Your task to perform on an android device: uninstall "PlayWell" Image 0: 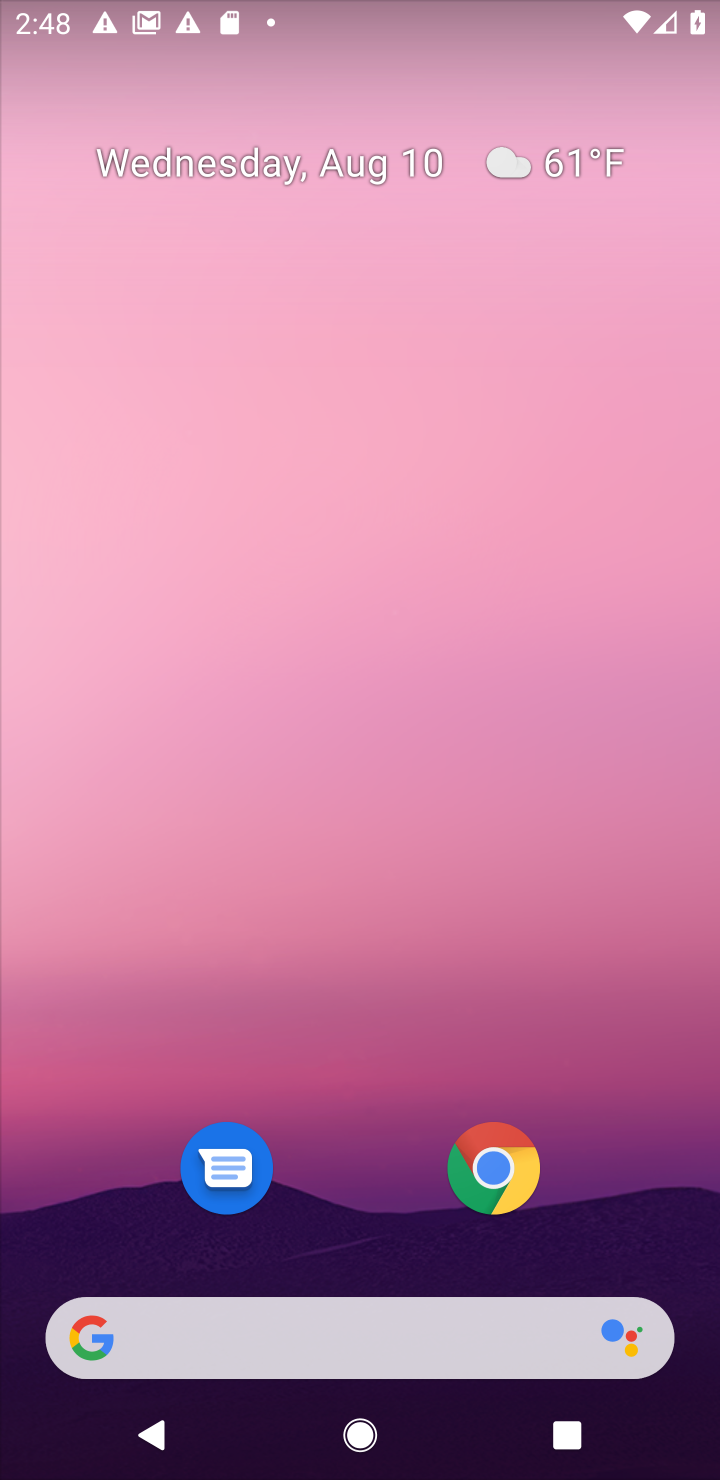
Step 0: drag from (273, 1332) to (278, 180)
Your task to perform on an android device: uninstall "PlayWell" Image 1: 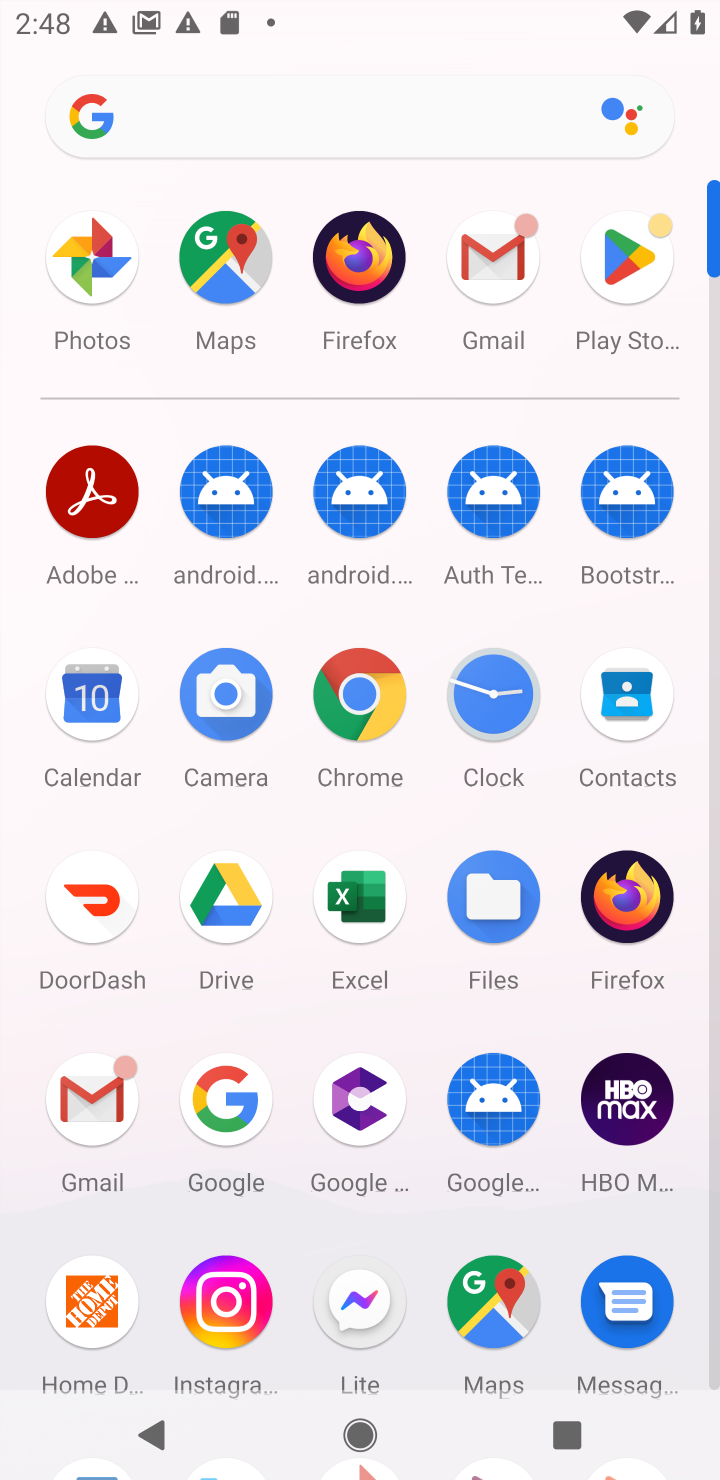
Step 1: click (636, 260)
Your task to perform on an android device: uninstall "PlayWell" Image 2: 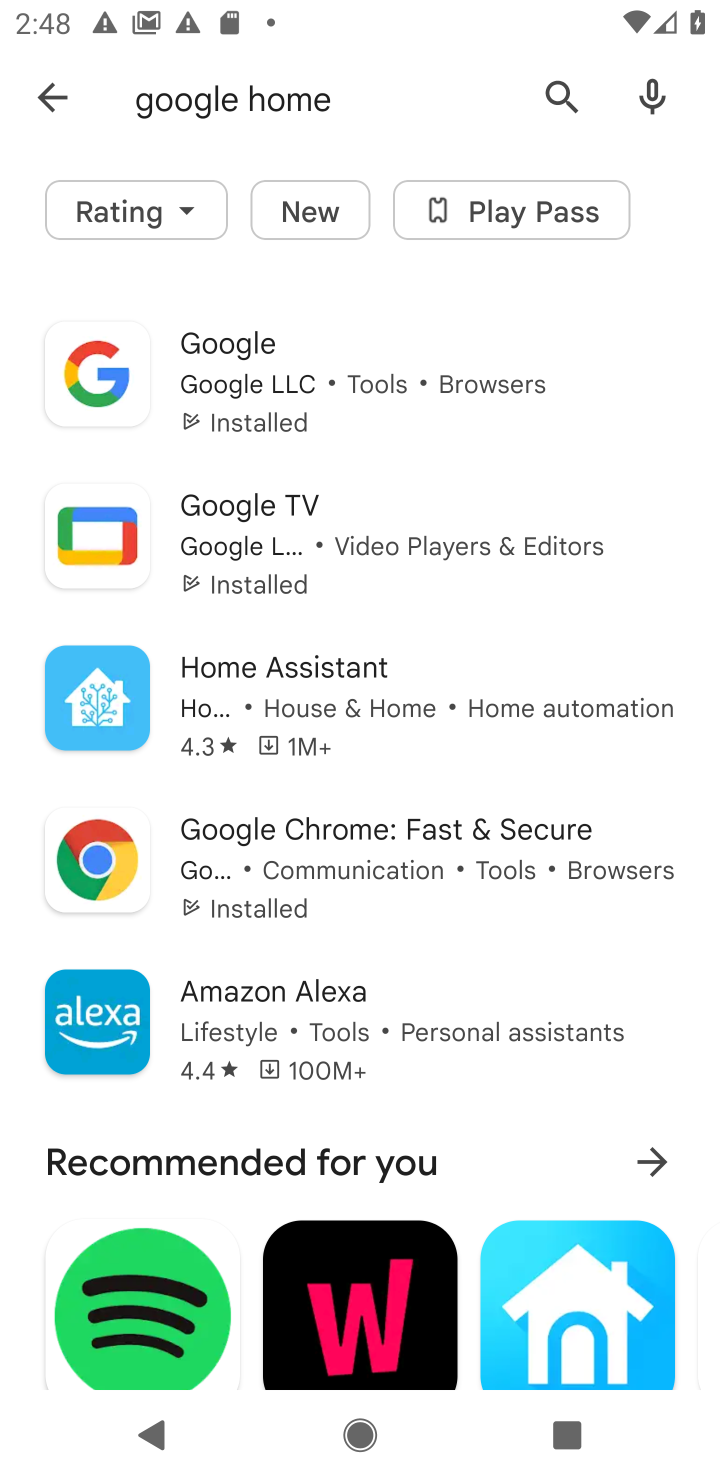
Step 2: press back button
Your task to perform on an android device: uninstall "PlayWell" Image 3: 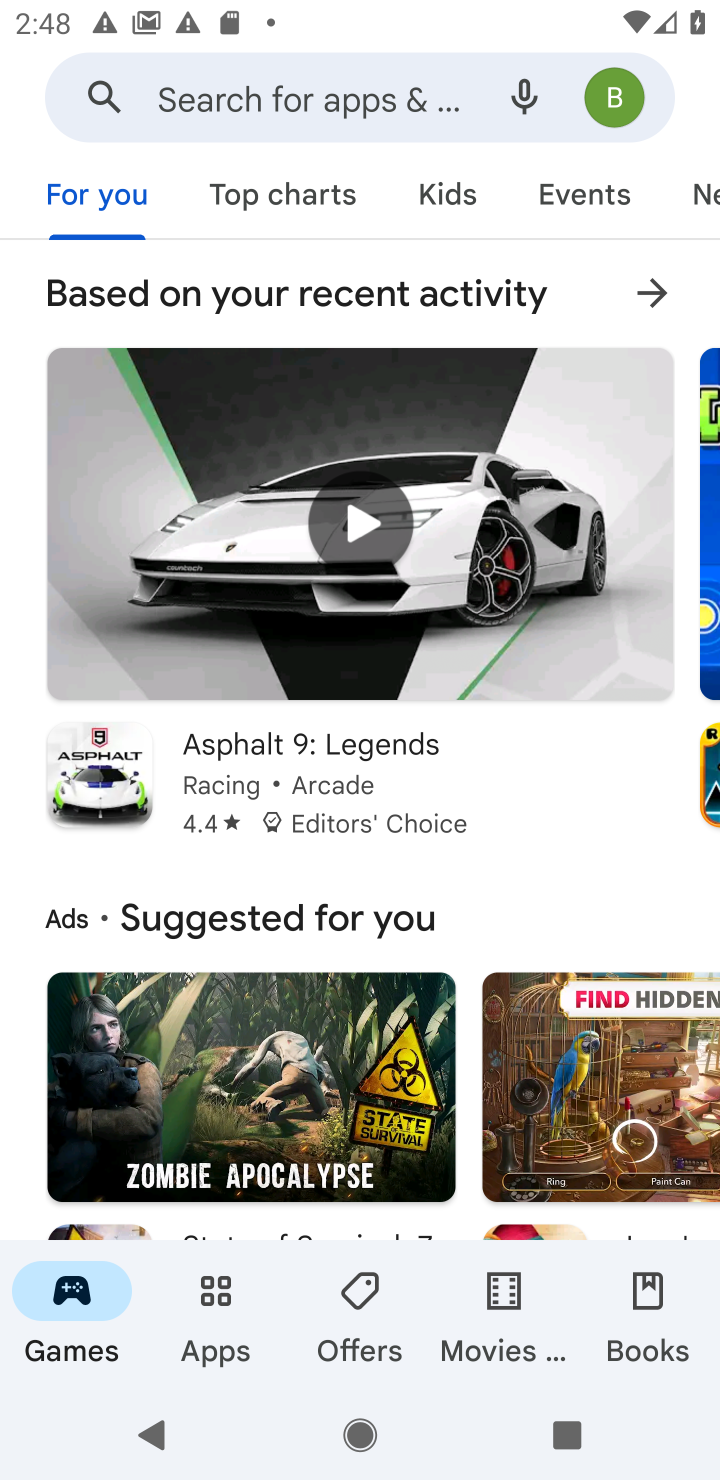
Step 3: click (408, 105)
Your task to perform on an android device: uninstall "PlayWell" Image 4: 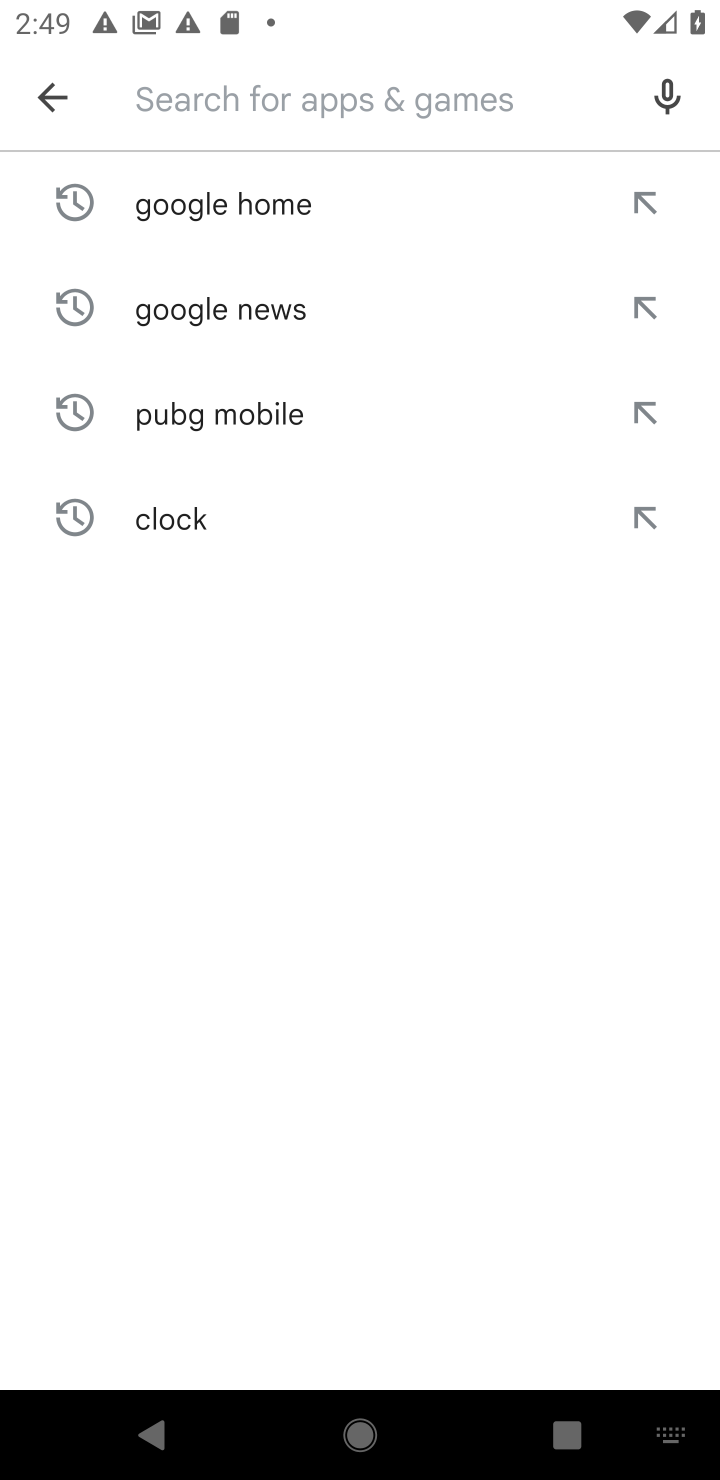
Step 4: type "PlayWell"
Your task to perform on an android device: uninstall "PlayWell" Image 5: 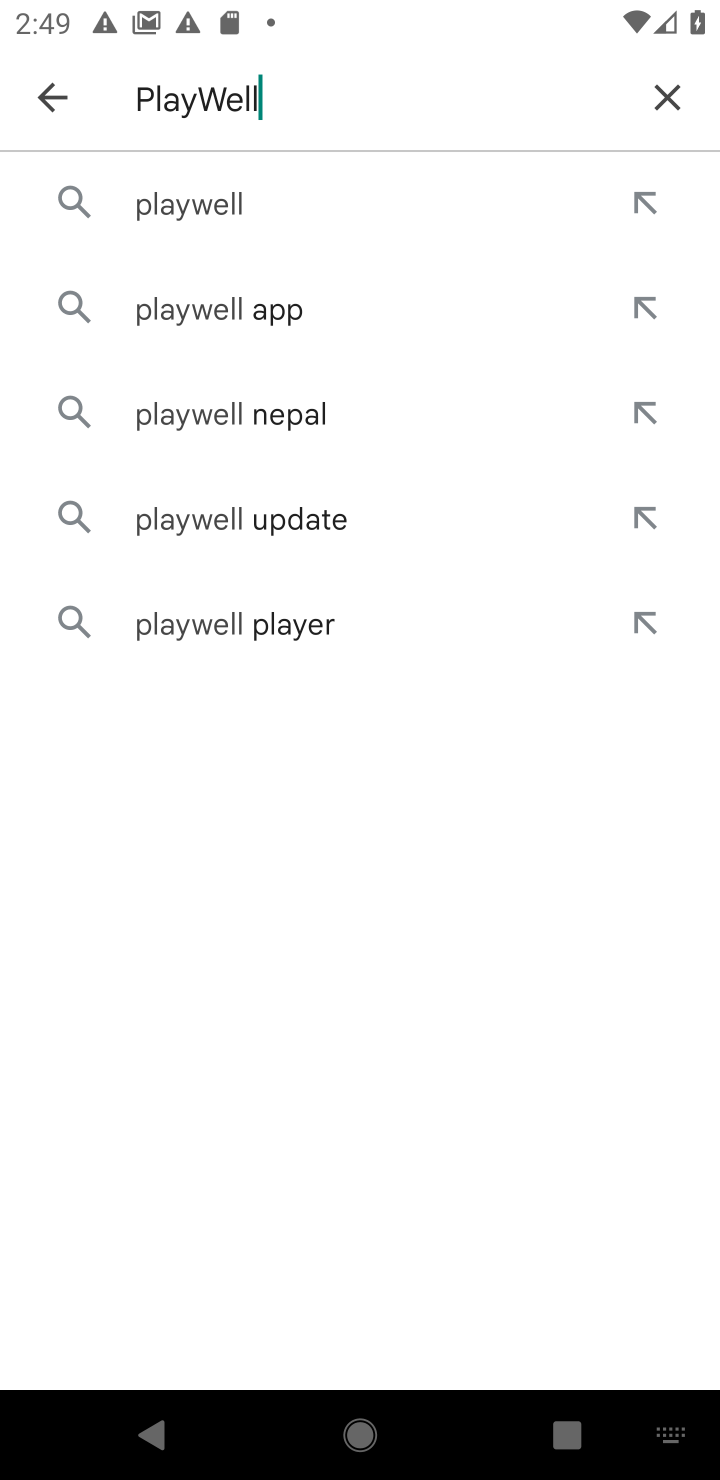
Step 5: click (220, 207)
Your task to perform on an android device: uninstall "PlayWell" Image 6: 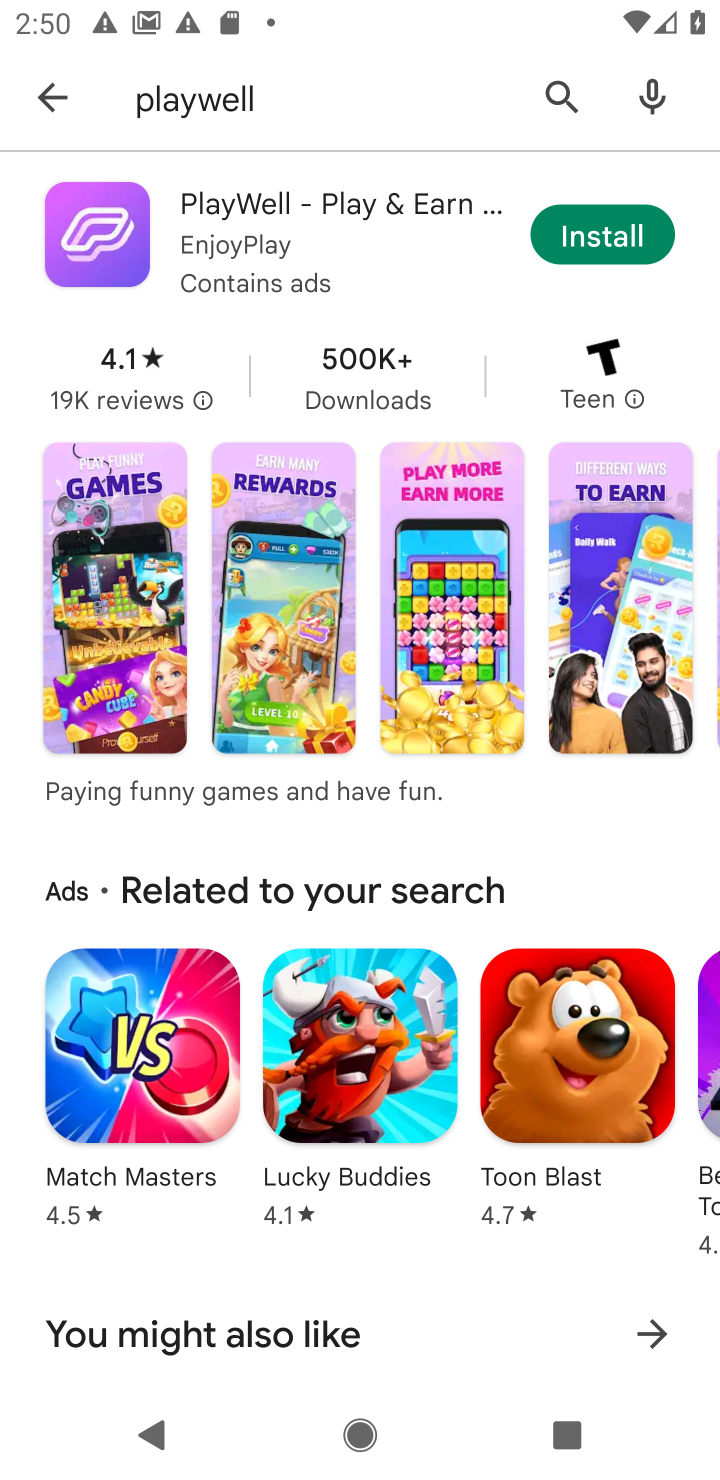
Step 6: task complete